Your task to perform on an android device: Go to accessibility settings Image 0: 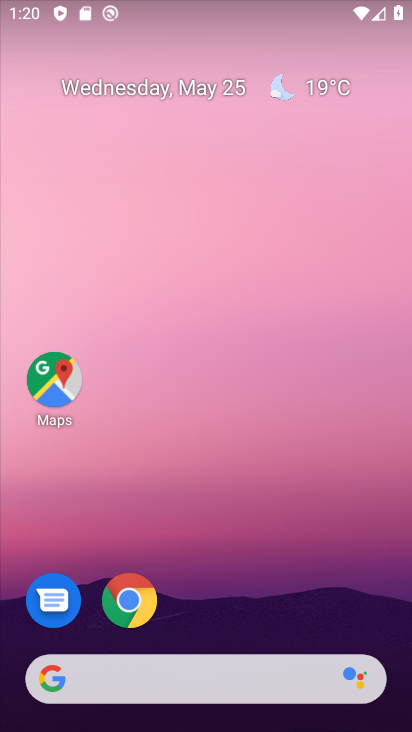
Step 0: drag from (204, 619) to (289, 96)
Your task to perform on an android device: Go to accessibility settings Image 1: 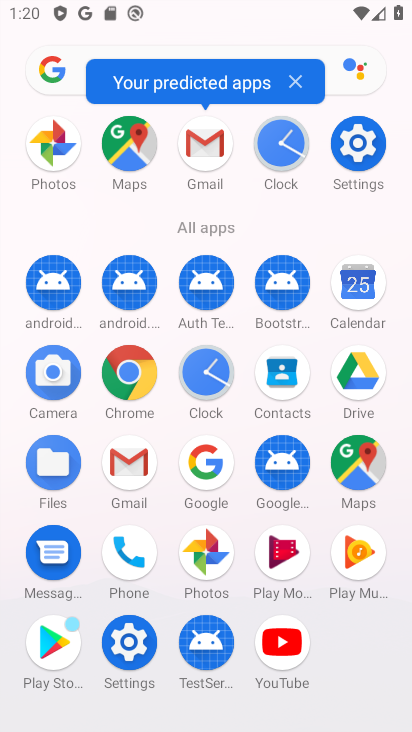
Step 1: click (144, 660)
Your task to perform on an android device: Go to accessibility settings Image 2: 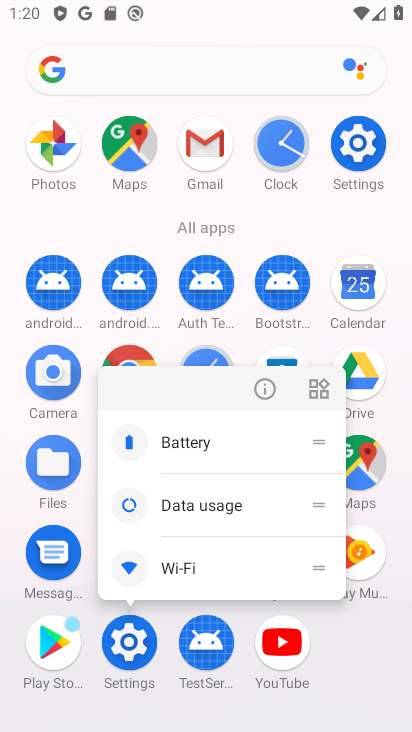
Step 2: click (131, 637)
Your task to perform on an android device: Go to accessibility settings Image 3: 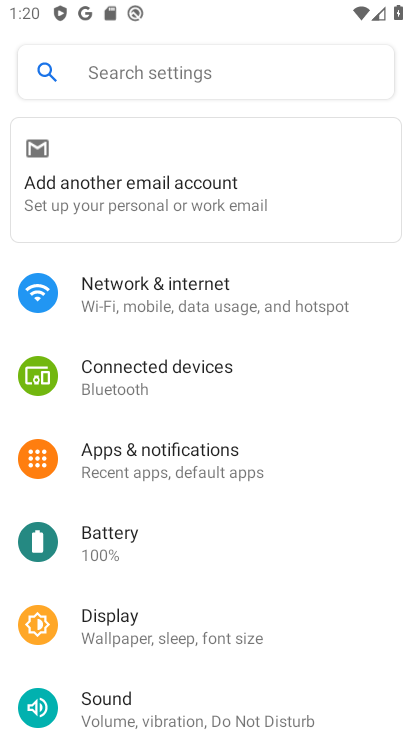
Step 3: drag from (141, 668) to (246, 263)
Your task to perform on an android device: Go to accessibility settings Image 4: 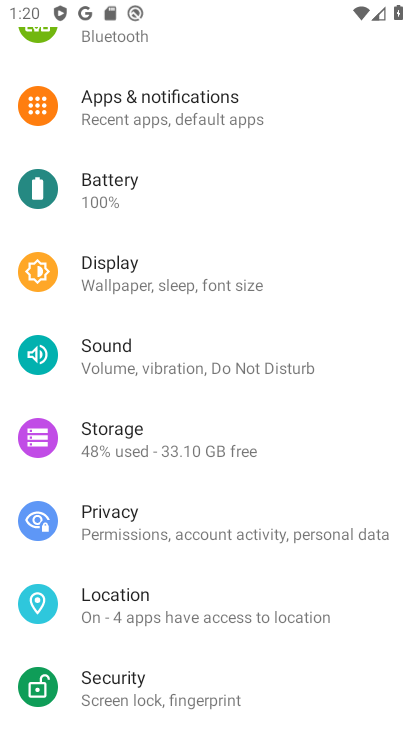
Step 4: drag from (171, 685) to (269, 243)
Your task to perform on an android device: Go to accessibility settings Image 5: 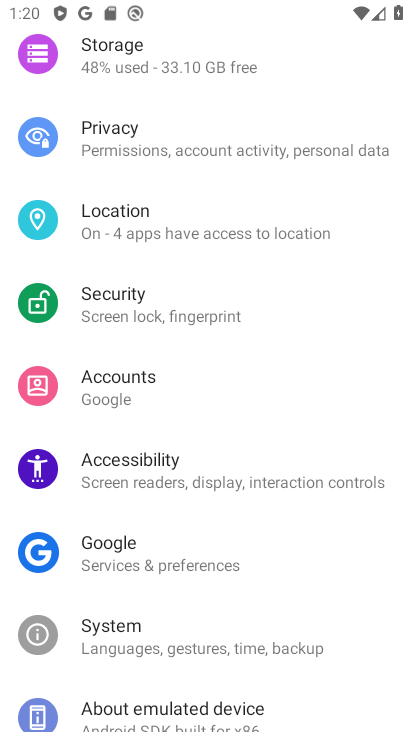
Step 5: drag from (159, 623) to (251, 183)
Your task to perform on an android device: Go to accessibility settings Image 6: 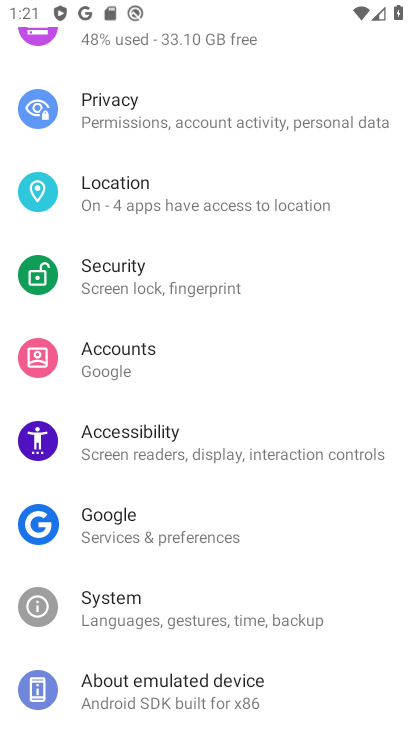
Step 6: click (205, 451)
Your task to perform on an android device: Go to accessibility settings Image 7: 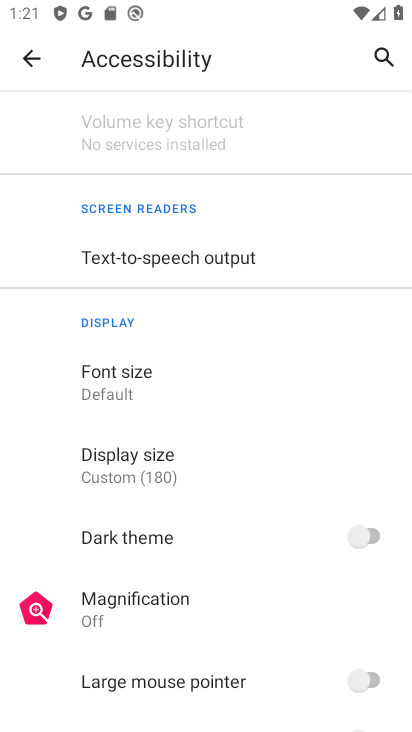
Step 7: task complete